Your task to perform on an android device: Check the weather Image 0: 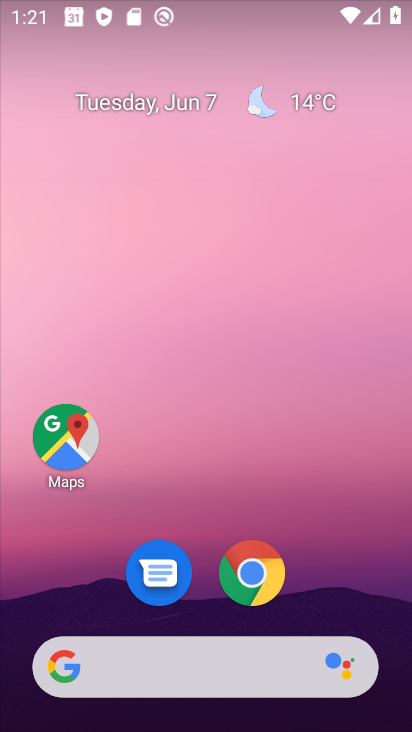
Step 0: click (314, 97)
Your task to perform on an android device: Check the weather Image 1: 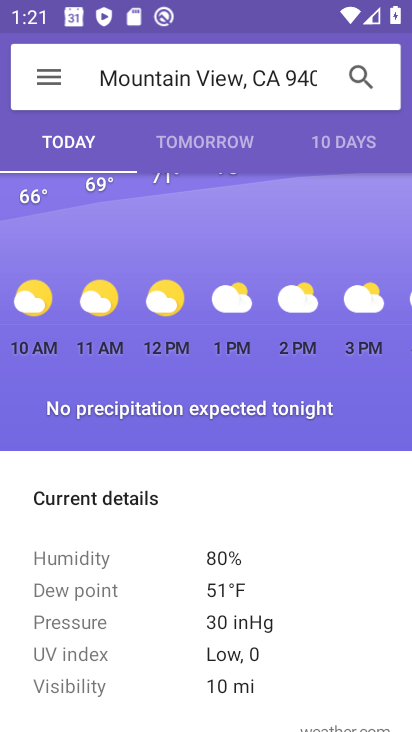
Step 1: task complete